Your task to perform on an android device: Search for Italian restaurants on Maps Image 0: 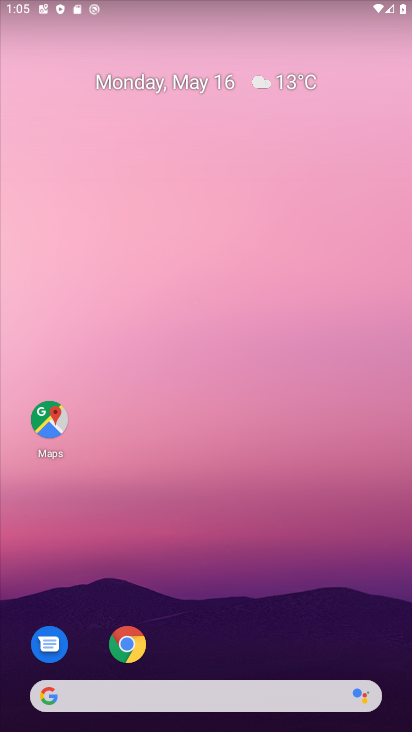
Step 0: drag from (198, 715) to (244, 194)
Your task to perform on an android device: Search for Italian restaurants on Maps Image 1: 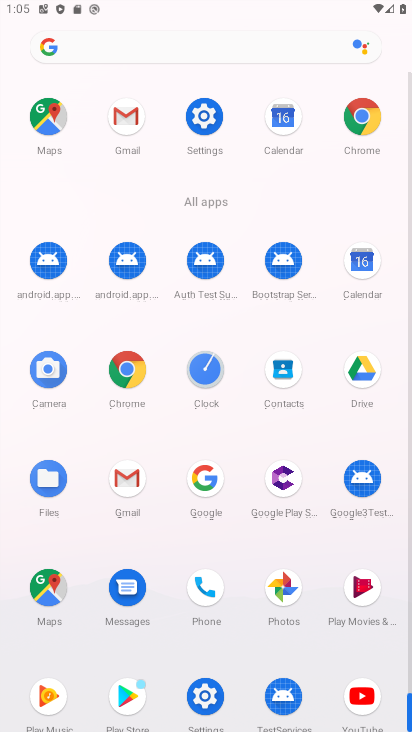
Step 1: click (48, 605)
Your task to perform on an android device: Search for Italian restaurants on Maps Image 2: 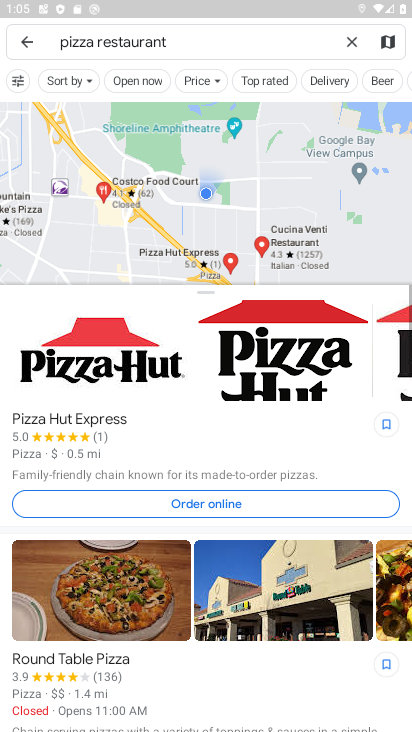
Step 2: click (351, 43)
Your task to perform on an android device: Search for Italian restaurants on Maps Image 3: 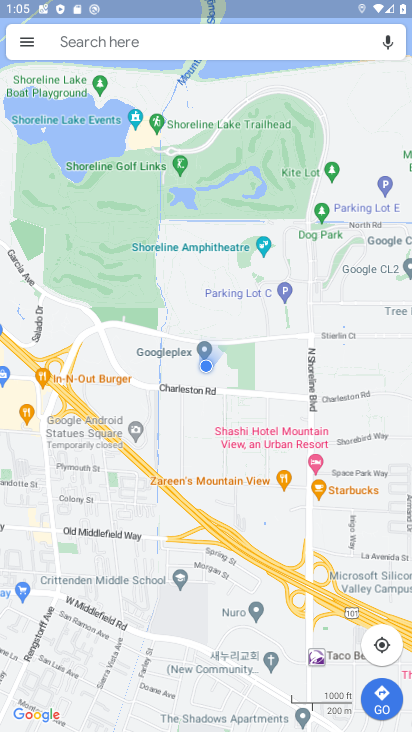
Step 3: click (283, 41)
Your task to perform on an android device: Search for Italian restaurants on Maps Image 4: 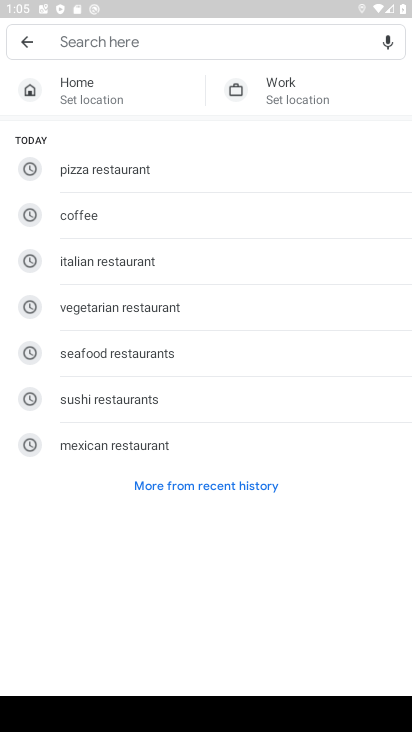
Step 4: type "italian restaurants"
Your task to perform on an android device: Search for Italian restaurants on Maps Image 5: 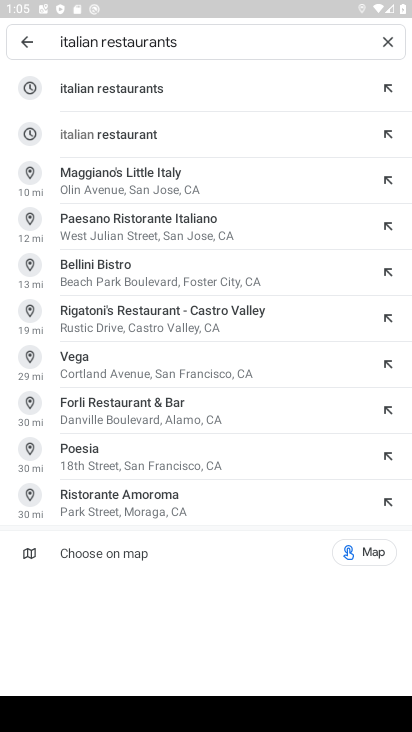
Step 5: click (165, 91)
Your task to perform on an android device: Search for Italian restaurants on Maps Image 6: 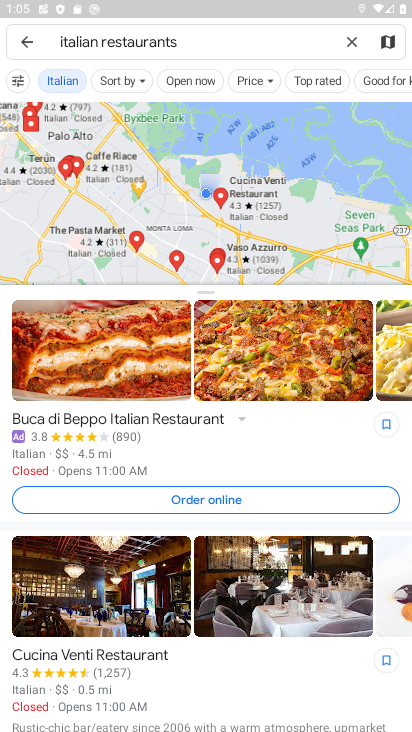
Step 6: task complete